Your task to perform on an android device: remove spam from my inbox in the gmail app Image 0: 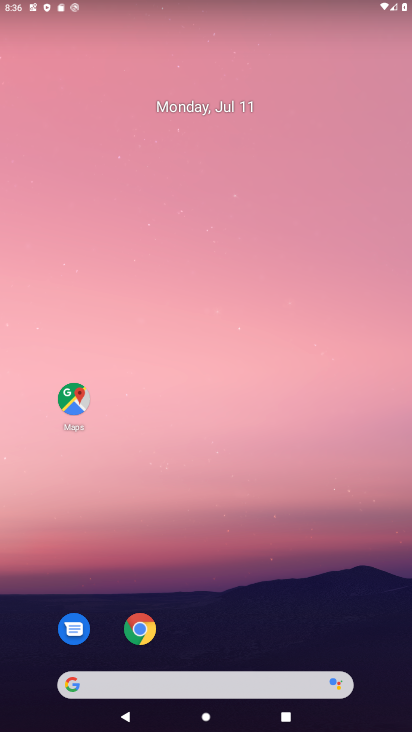
Step 0: drag from (186, 624) to (231, 62)
Your task to perform on an android device: remove spam from my inbox in the gmail app Image 1: 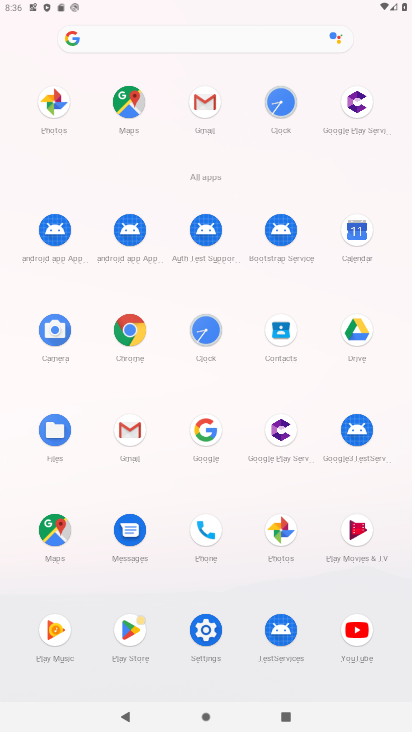
Step 1: click (194, 93)
Your task to perform on an android device: remove spam from my inbox in the gmail app Image 2: 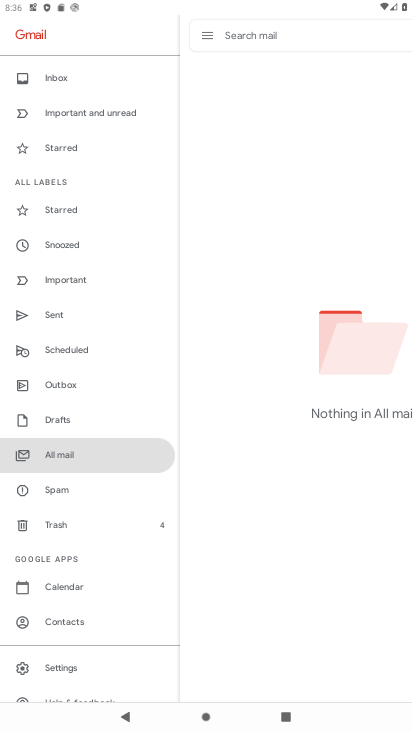
Step 2: click (80, 487)
Your task to perform on an android device: remove spam from my inbox in the gmail app Image 3: 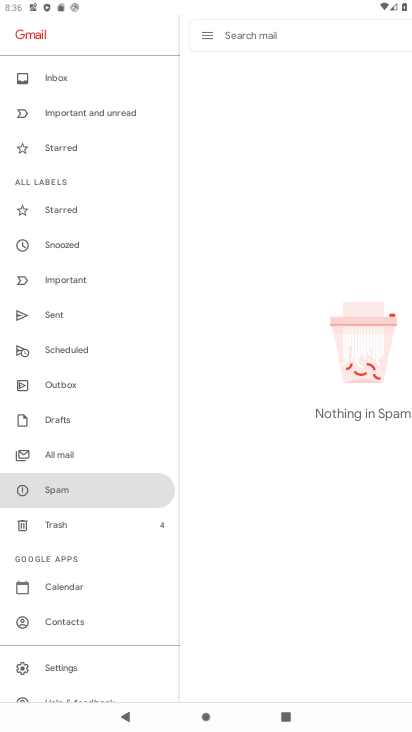
Step 3: task complete